Your task to perform on an android device: Do I have any events this weekend? Image 0: 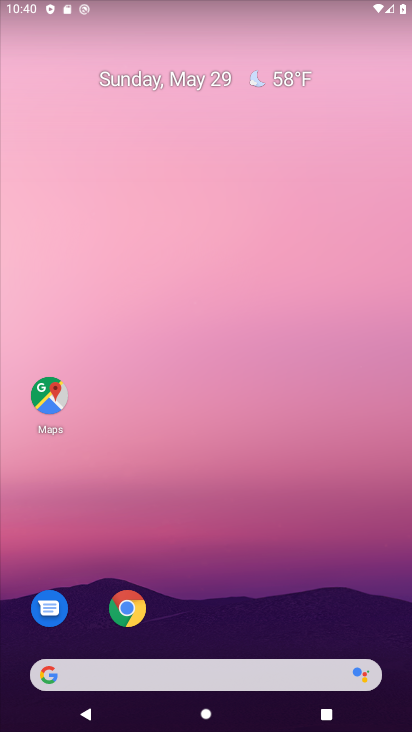
Step 0: drag from (226, 627) to (261, 119)
Your task to perform on an android device: Do I have any events this weekend? Image 1: 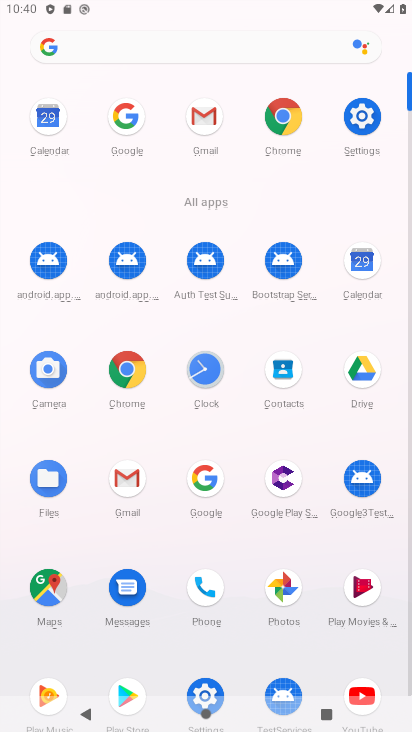
Step 1: click (360, 269)
Your task to perform on an android device: Do I have any events this weekend? Image 2: 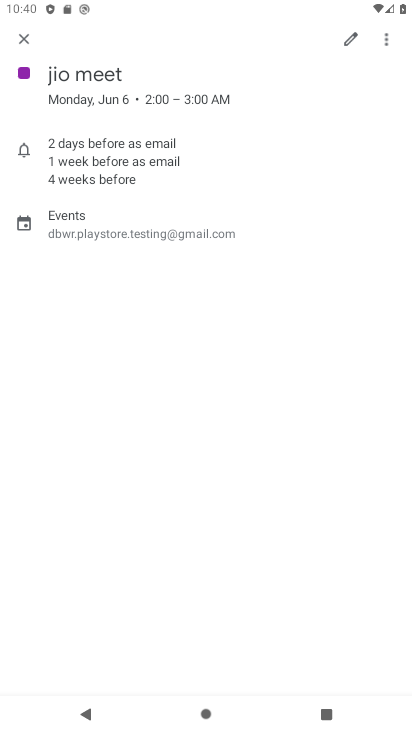
Step 2: click (28, 36)
Your task to perform on an android device: Do I have any events this weekend? Image 3: 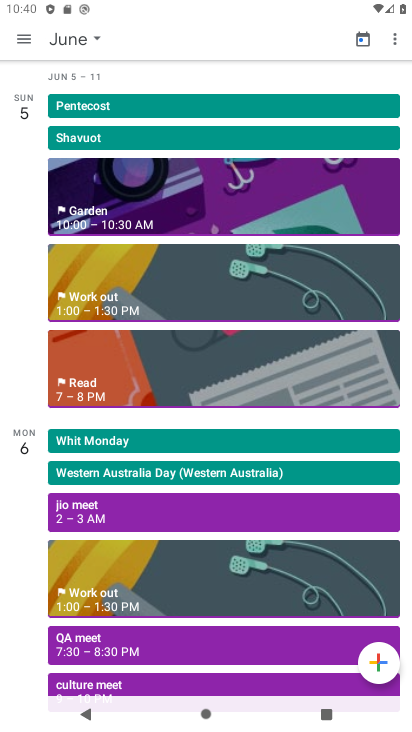
Step 3: click (70, 40)
Your task to perform on an android device: Do I have any events this weekend? Image 4: 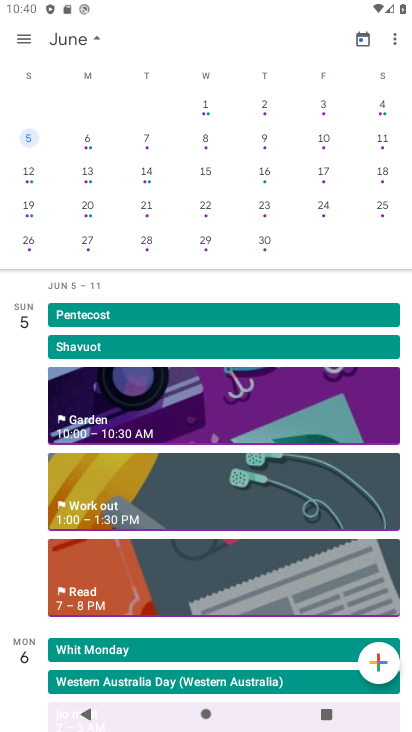
Step 4: click (267, 112)
Your task to perform on an android device: Do I have any events this weekend? Image 5: 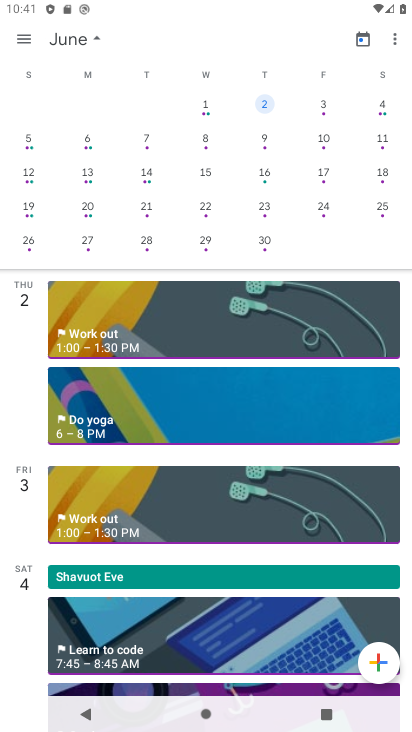
Step 5: task complete